Your task to perform on an android device: uninstall "Move to iOS" Image 0: 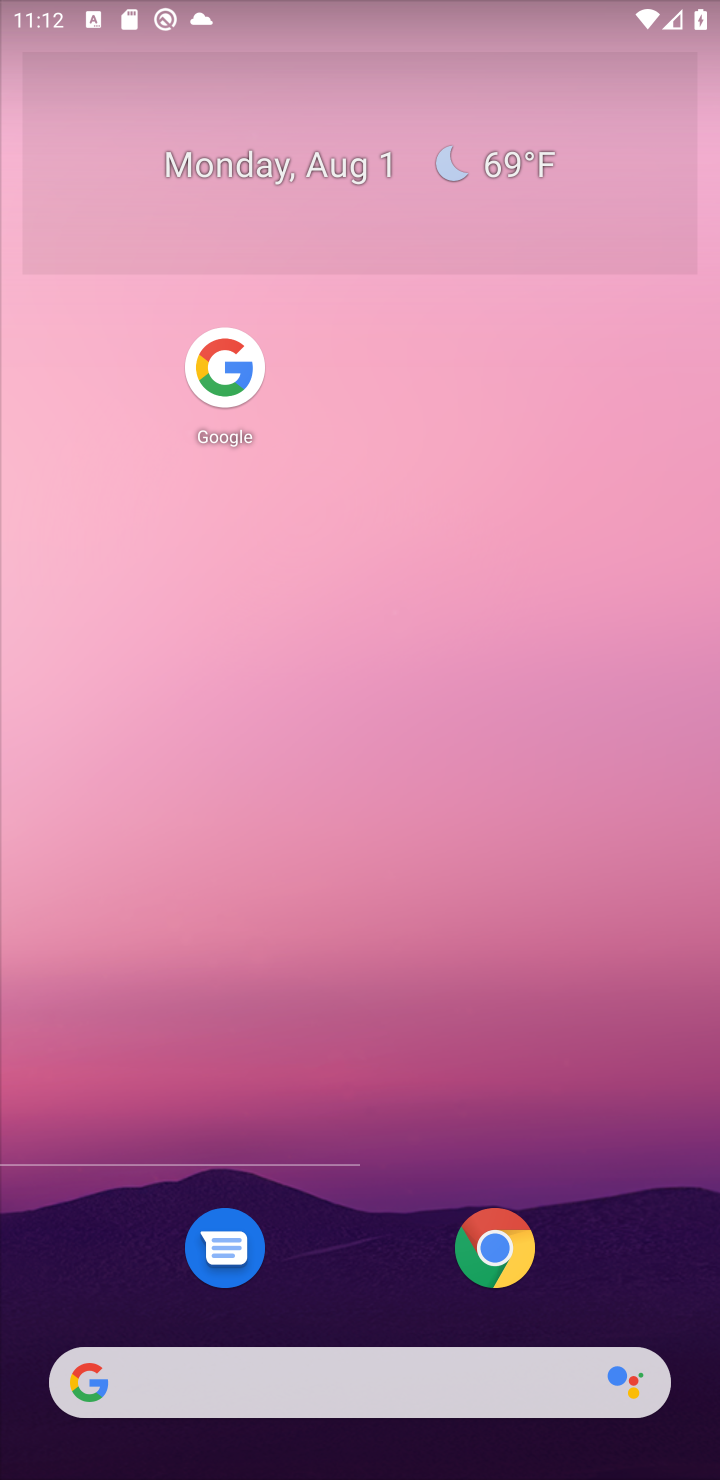
Step 0: drag from (369, 1091) to (469, 267)
Your task to perform on an android device: uninstall "Move to iOS" Image 1: 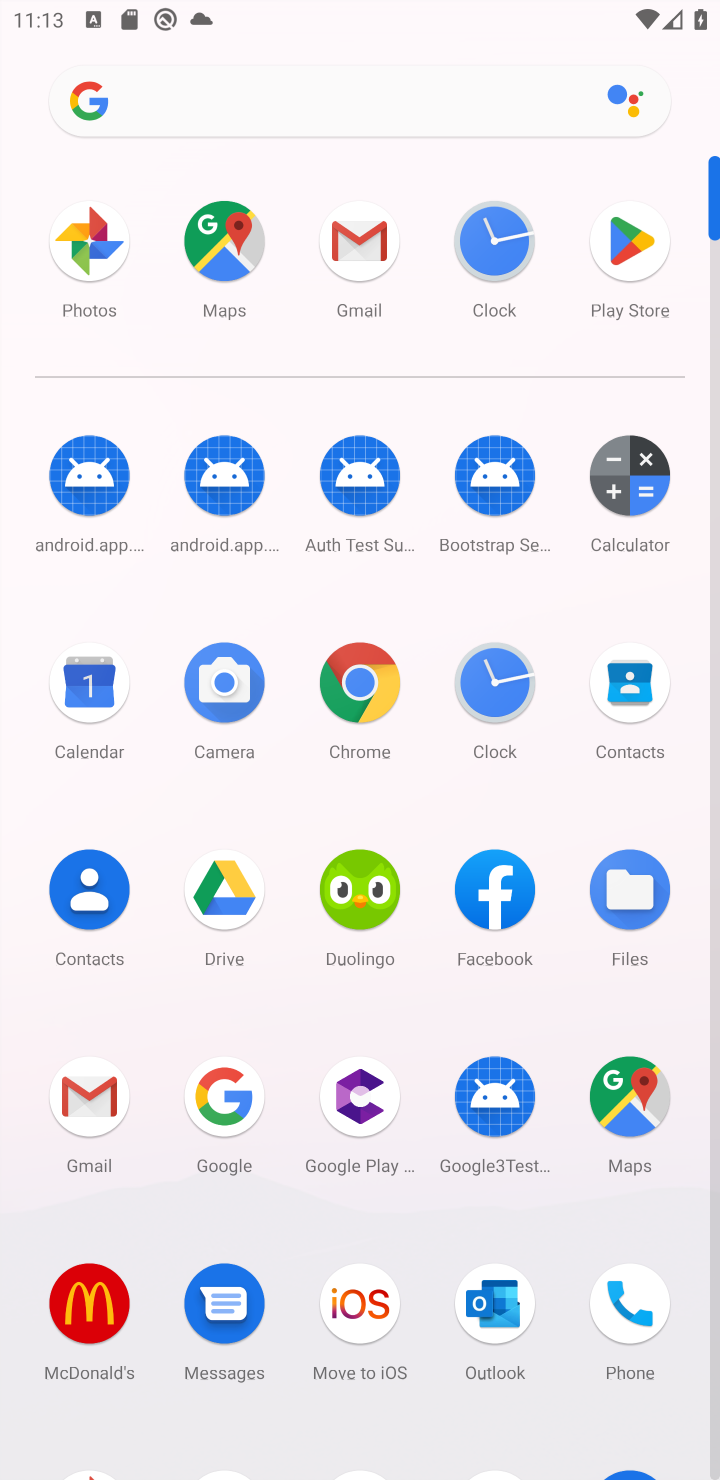
Step 1: drag from (451, 1205) to (509, 435)
Your task to perform on an android device: uninstall "Move to iOS" Image 2: 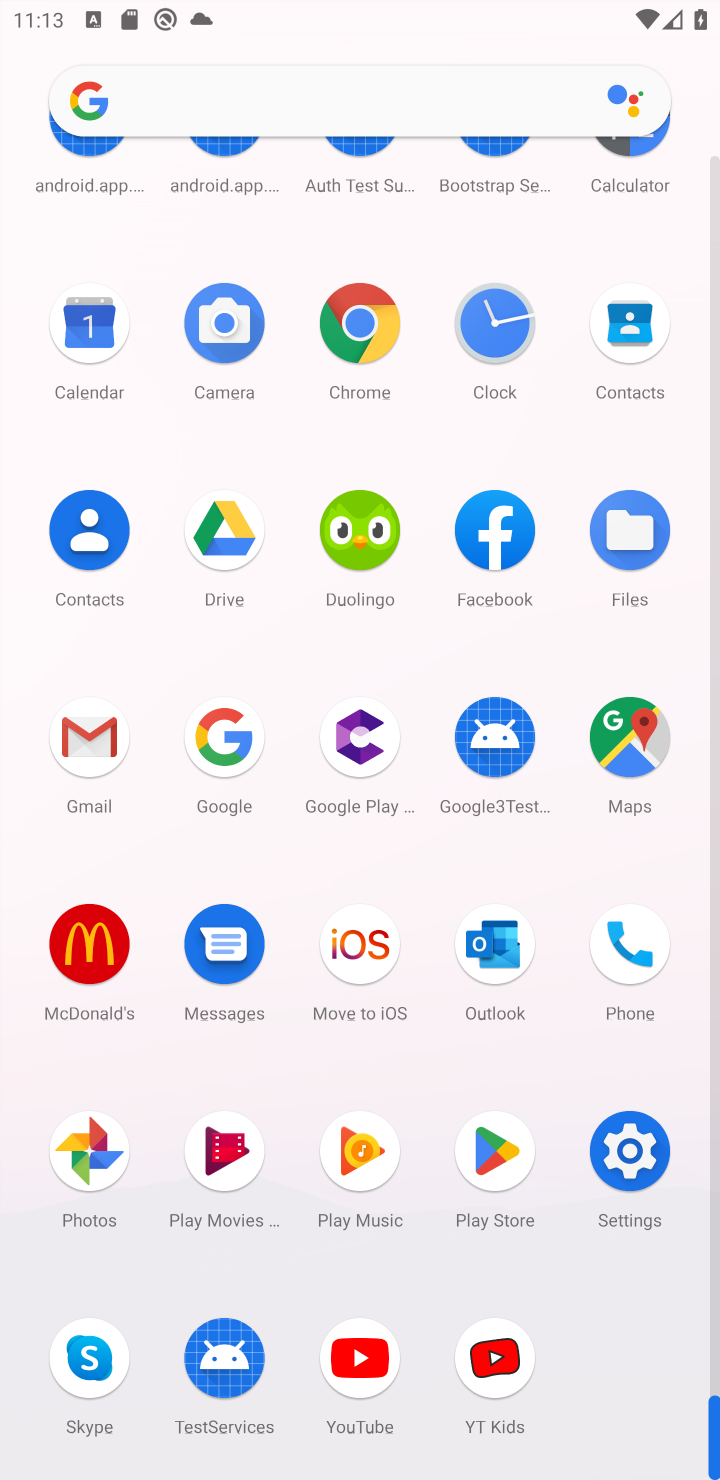
Step 2: click (491, 1144)
Your task to perform on an android device: uninstall "Move to iOS" Image 3: 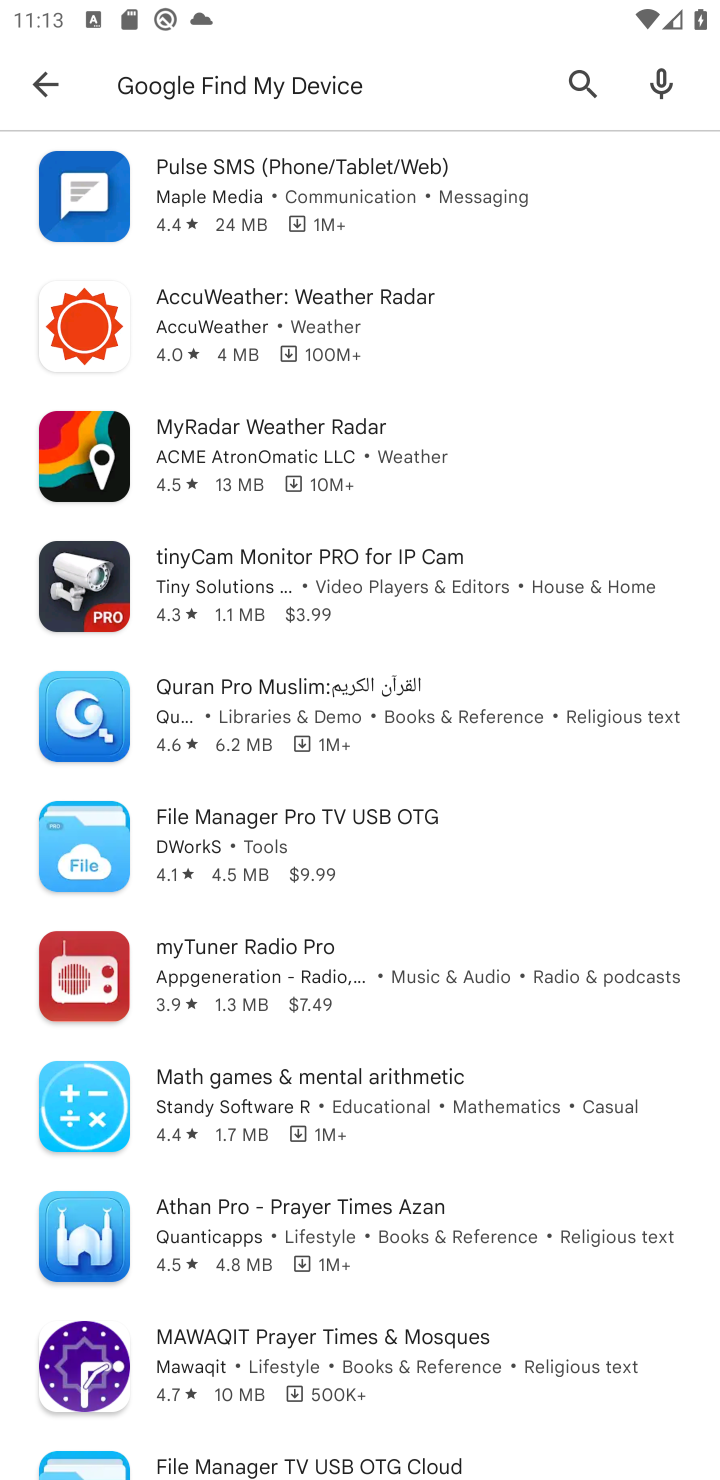
Step 3: click (313, 83)
Your task to perform on an android device: uninstall "Move to iOS" Image 4: 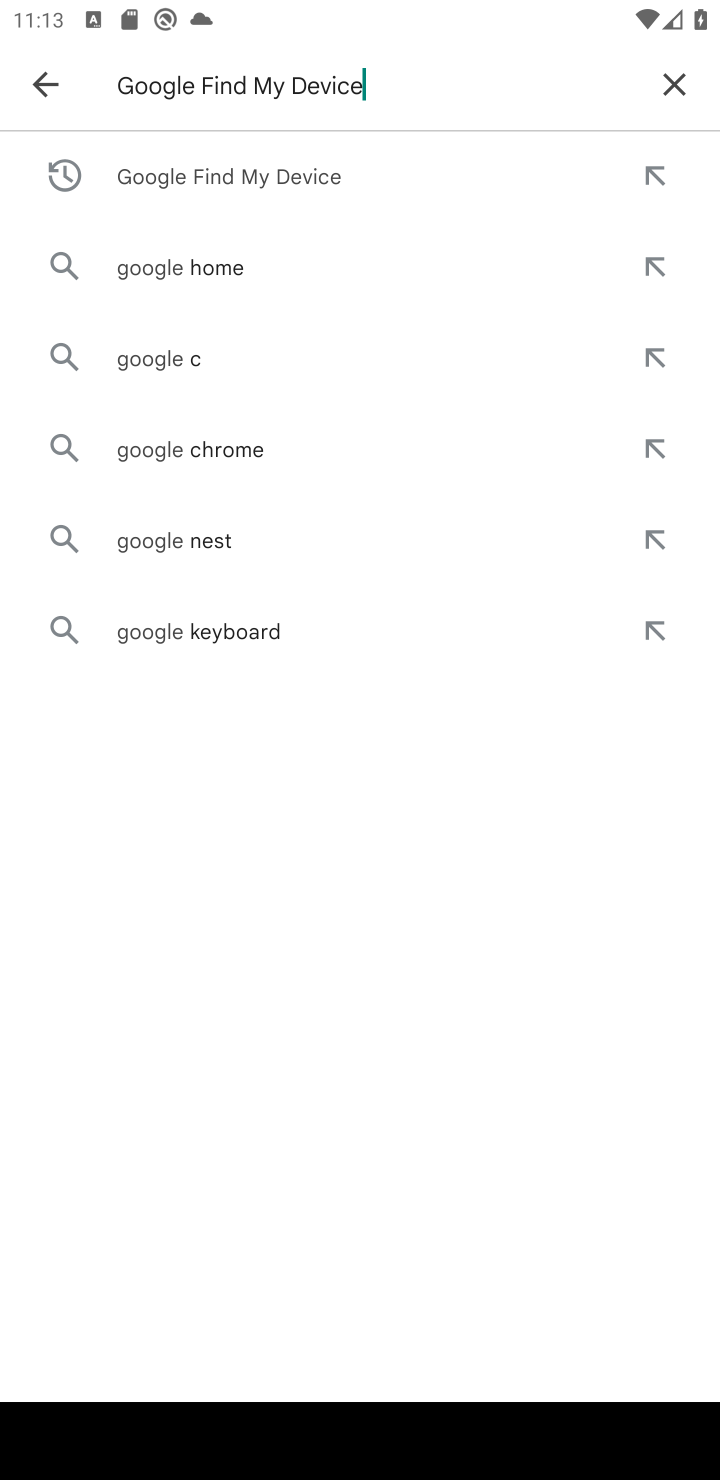
Step 4: click (695, 77)
Your task to perform on an android device: uninstall "Move to iOS" Image 5: 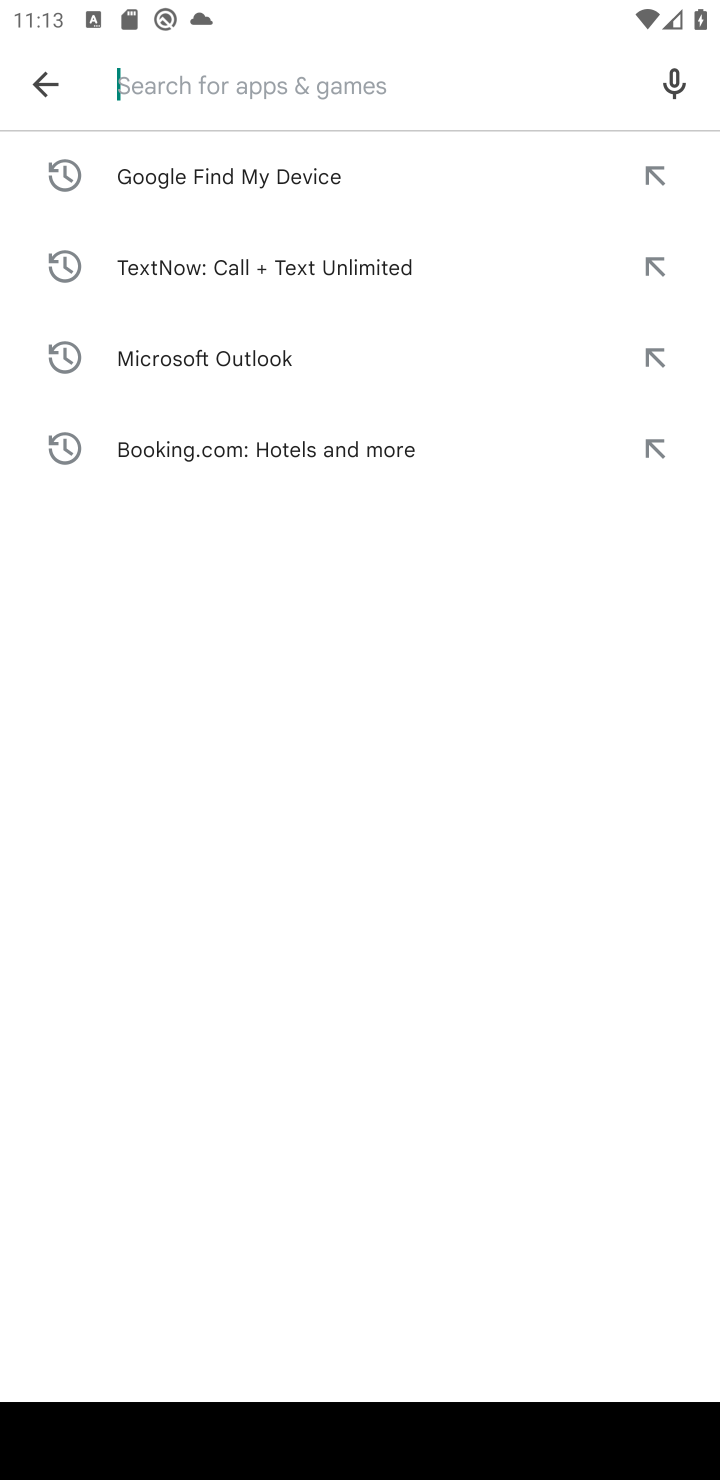
Step 5: type "Move to iOS"
Your task to perform on an android device: uninstall "Move to iOS" Image 6: 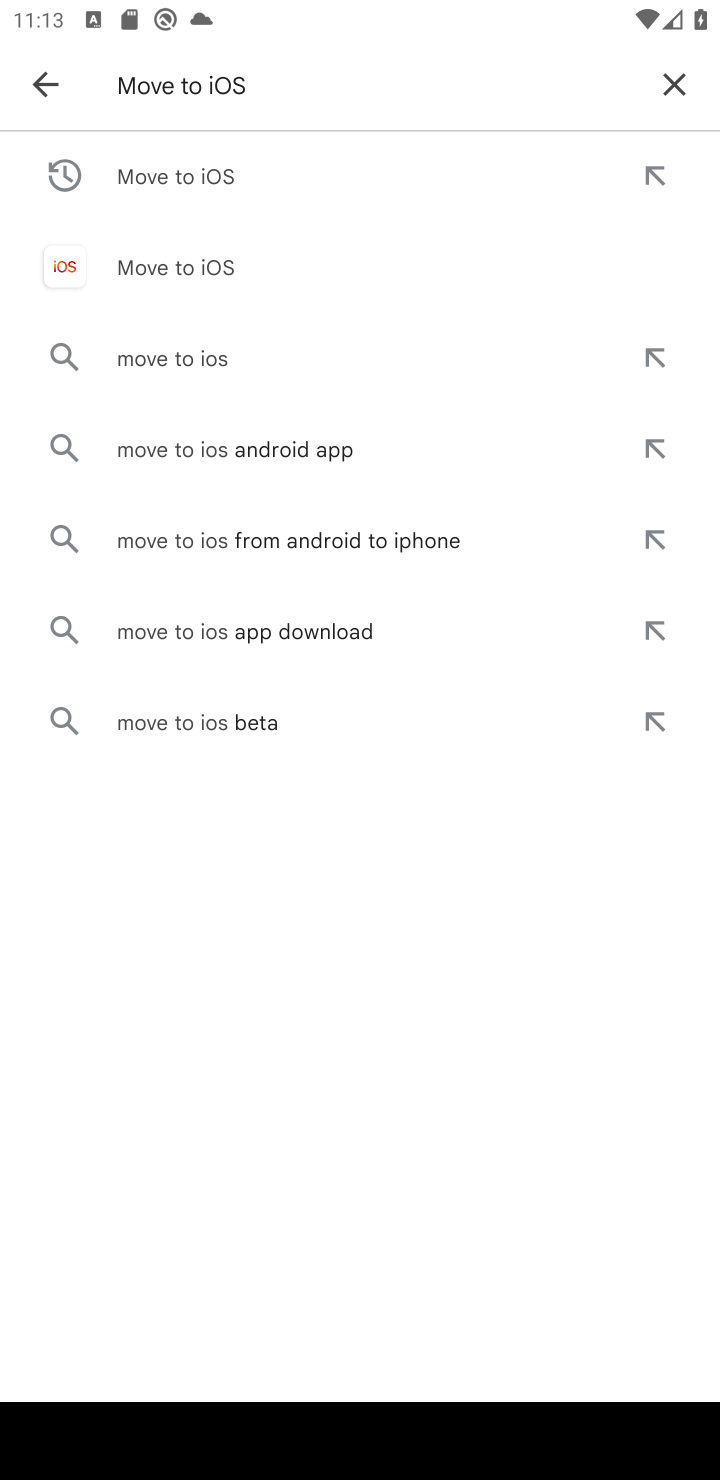
Step 6: press enter
Your task to perform on an android device: uninstall "Move to iOS" Image 7: 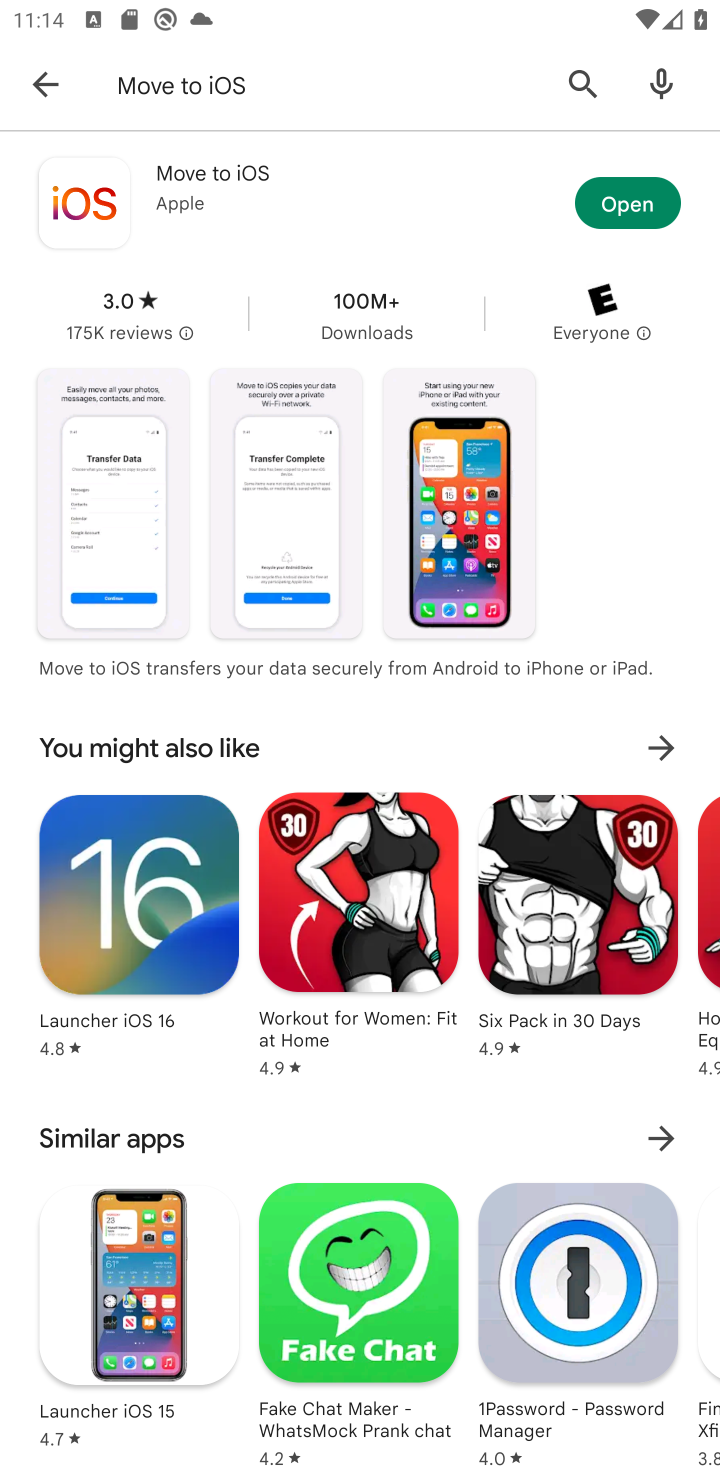
Step 7: click (237, 199)
Your task to perform on an android device: uninstall "Move to iOS" Image 8: 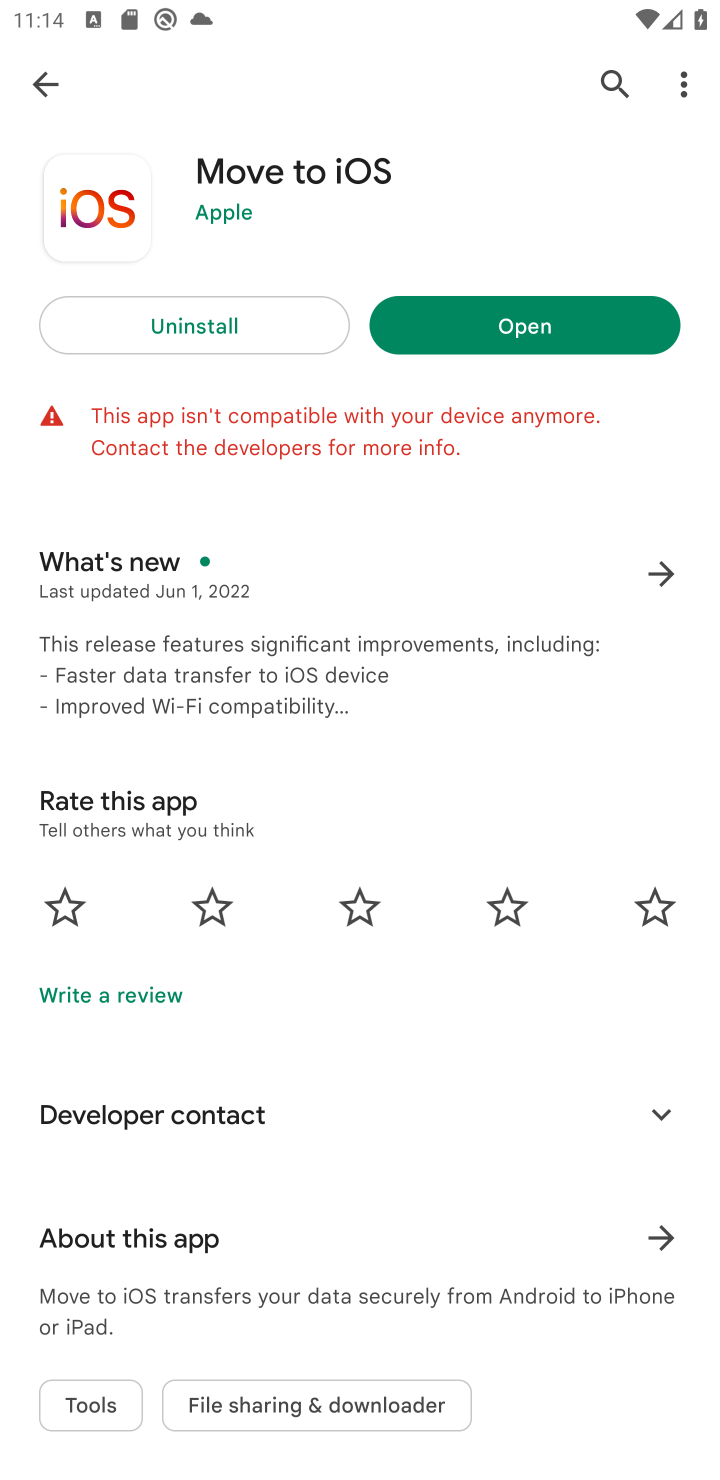
Step 8: click (186, 336)
Your task to perform on an android device: uninstall "Move to iOS" Image 9: 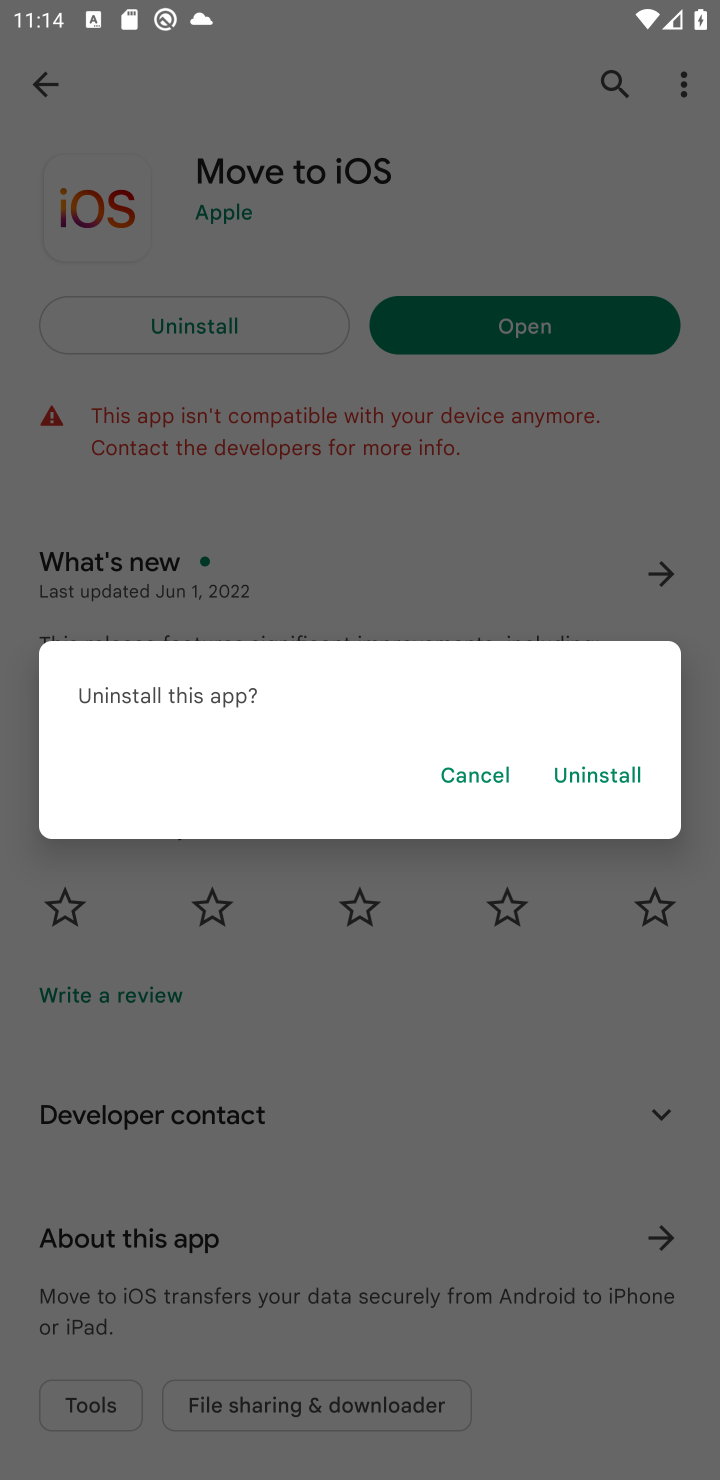
Step 9: click (585, 766)
Your task to perform on an android device: uninstall "Move to iOS" Image 10: 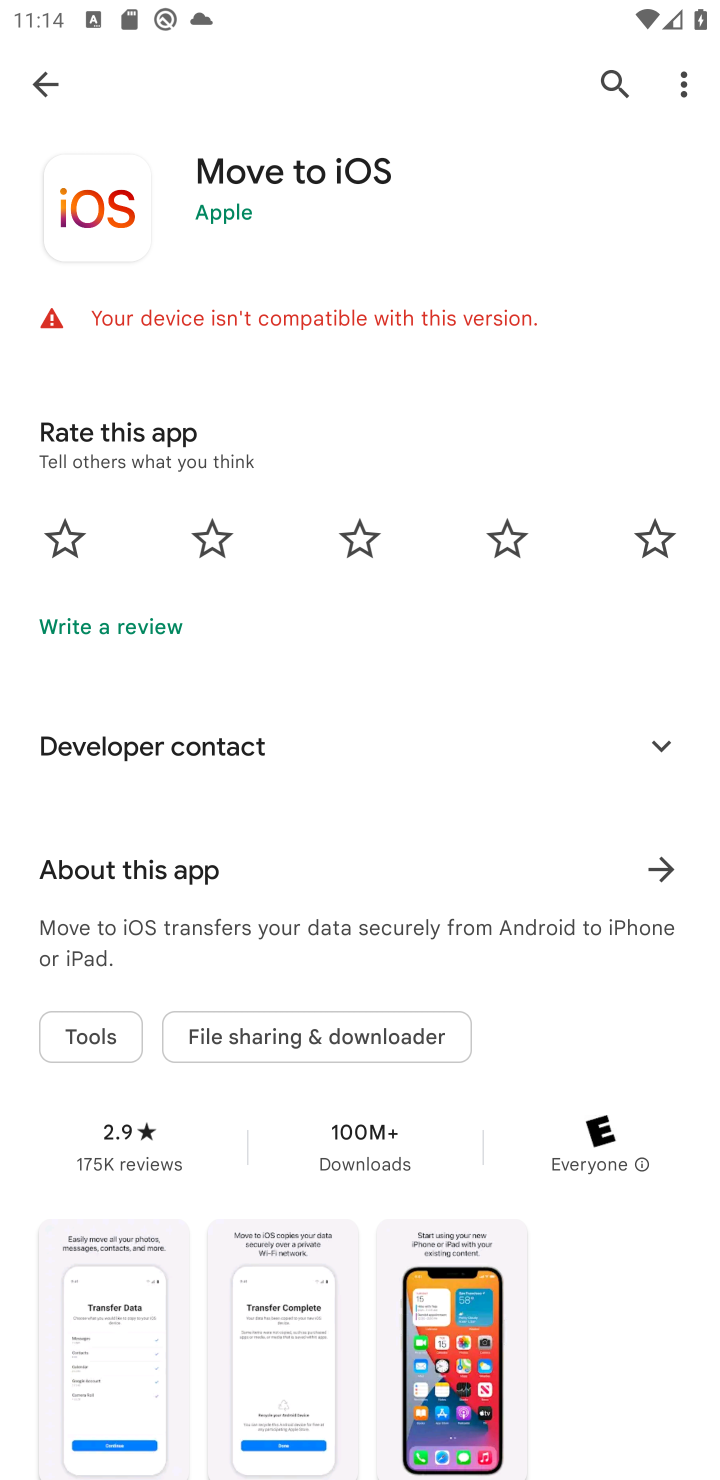
Step 10: task complete